Your task to perform on an android device: Do I have any events this weekend? Image 0: 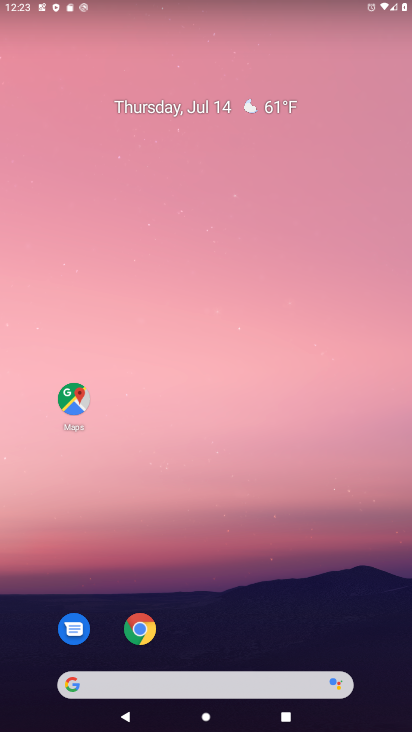
Step 0: press home button
Your task to perform on an android device: Do I have any events this weekend? Image 1: 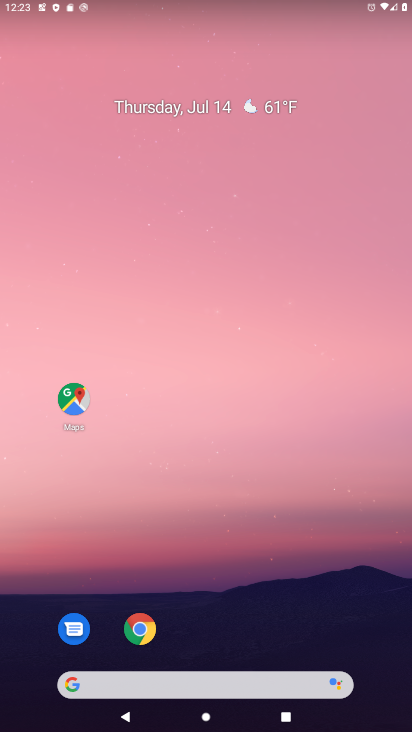
Step 1: drag from (248, 581) to (162, 133)
Your task to perform on an android device: Do I have any events this weekend? Image 2: 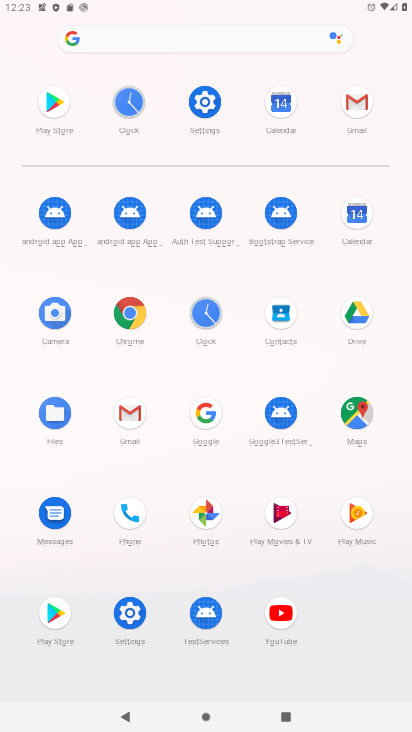
Step 2: click (357, 210)
Your task to perform on an android device: Do I have any events this weekend? Image 3: 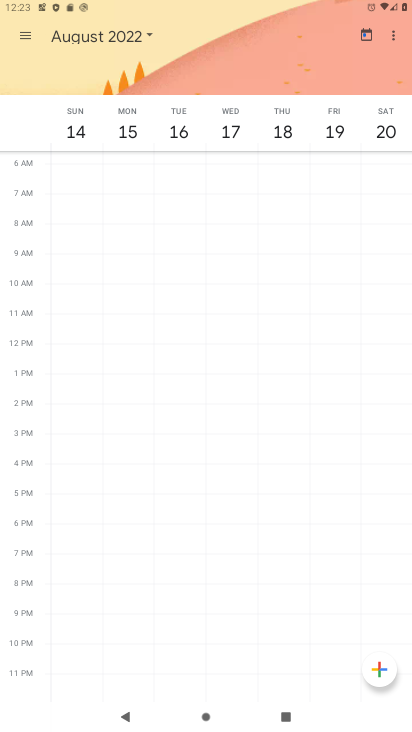
Step 3: click (17, 32)
Your task to perform on an android device: Do I have any events this weekend? Image 4: 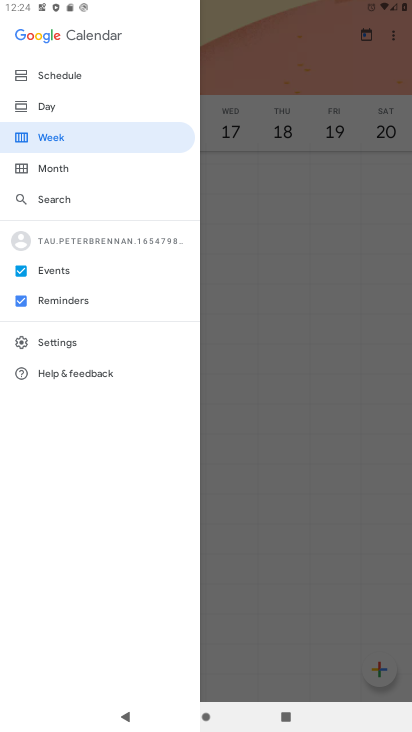
Step 4: click (46, 129)
Your task to perform on an android device: Do I have any events this weekend? Image 5: 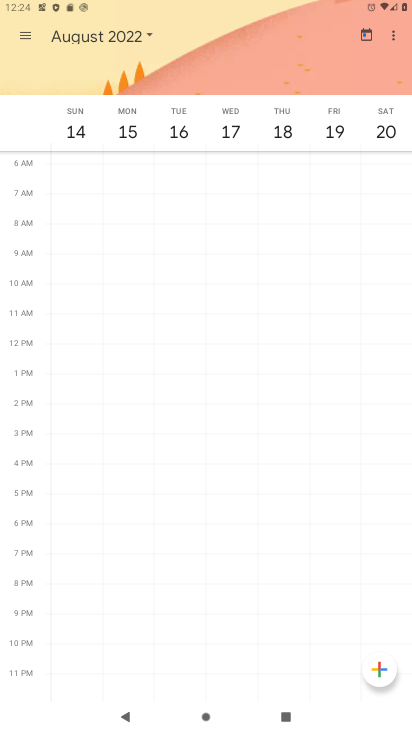
Step 5: click (144, 36)
Your task to perform on an android device: Do I have any events this weekend? Image 6: 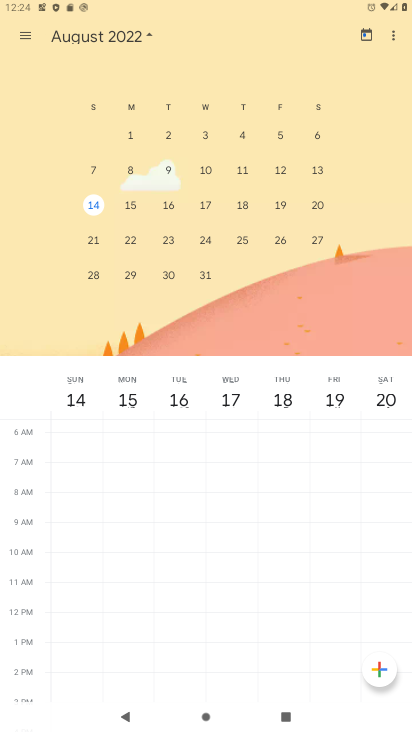
Step 6: drag from (92, 159) to (319, 234)
Your task to perform on an android device: Do I have any events this weekend? Image 7: 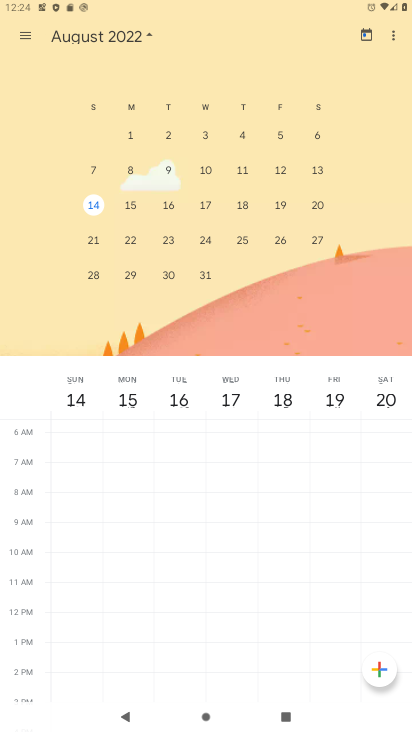
Step 7: click (94, 200)
Your task to perform on an android device: Do I have any events this weekend? Image 8: 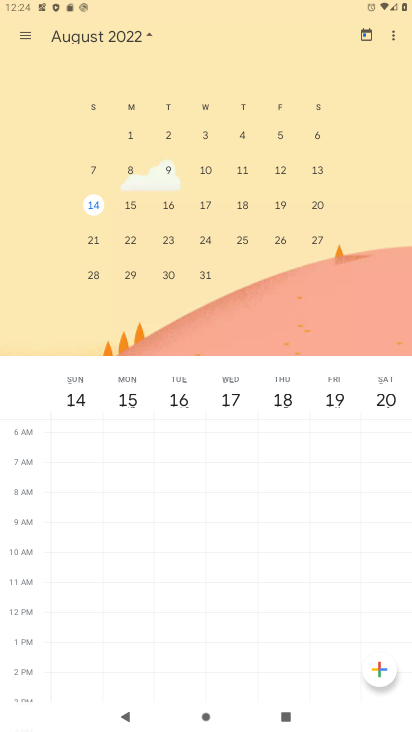
Step 8: task complete